Your task to perform on an android device: open device folders in google photos Image 0: 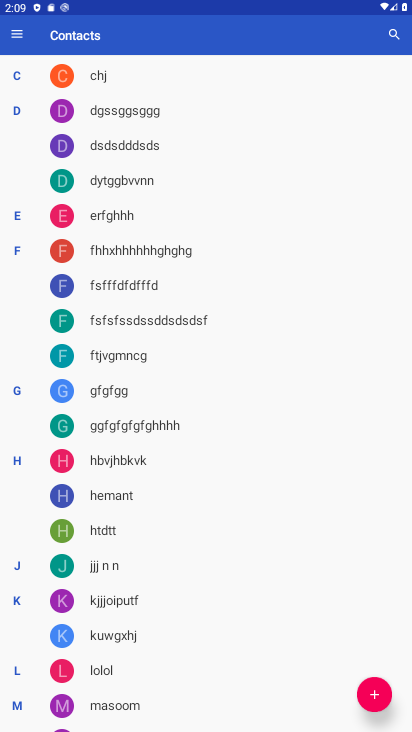
Step 0: task complete